Your task to perform on an android device: Open my contact list Image 0: 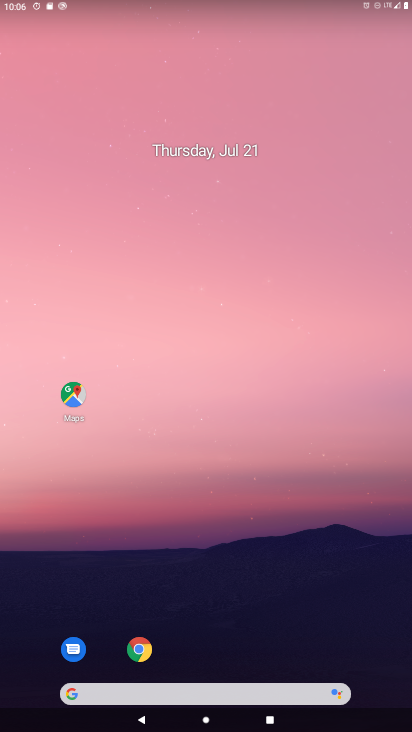
Step 0: drag from (349, 651) to (47, 0)
Your task to perform on an android device: Open my contact list Image 1: 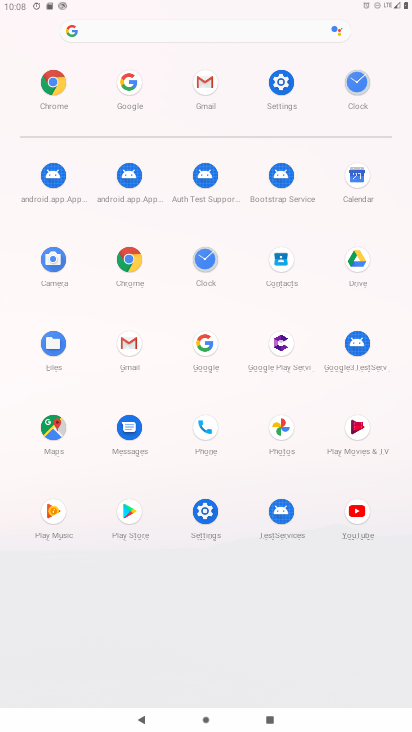
Step 1: click (267, 266)
Your task to perform on an android device: Open my contact list Image 2: 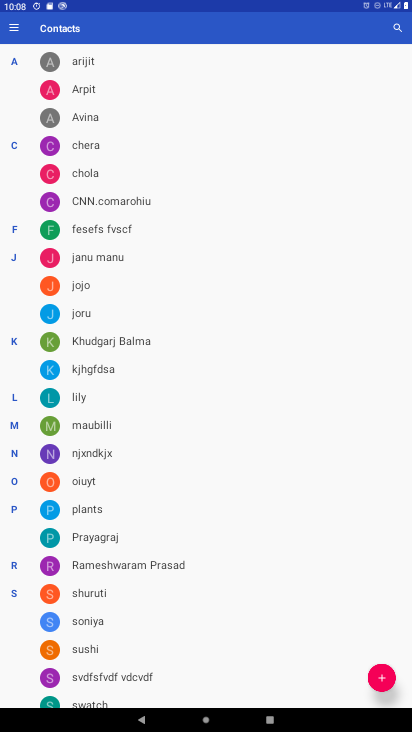
Step 2: task complete